Your task to perform on an android device: empty trash in google photos Image 0: 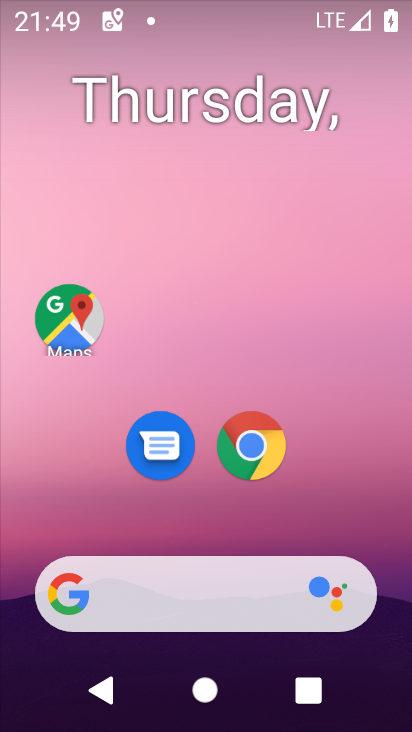
Step 0: drag from (199, 494) to (274, 59)
Your task to perform on an android device: empty trash in google photos Image 1: 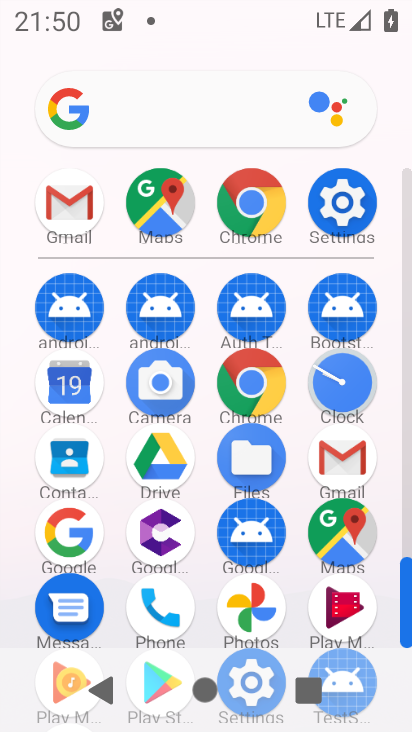
Step 1: click (268, 619)
Your task to perform on an android device: empty trash in google photos Image 2: 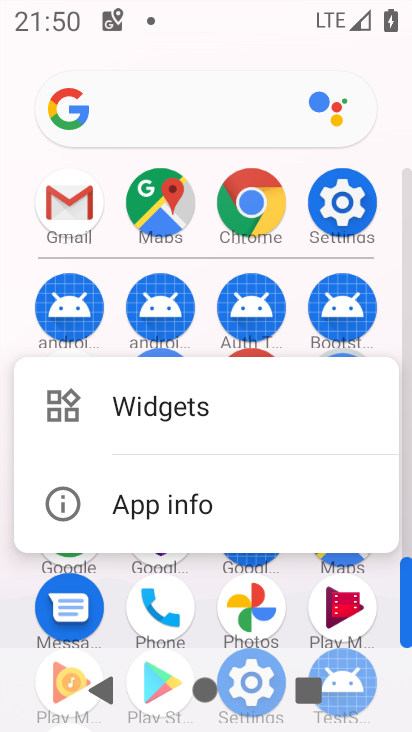
Step 2: click (104, 511)
Your task to perform on an android device: empty trash in google photos Image 3: 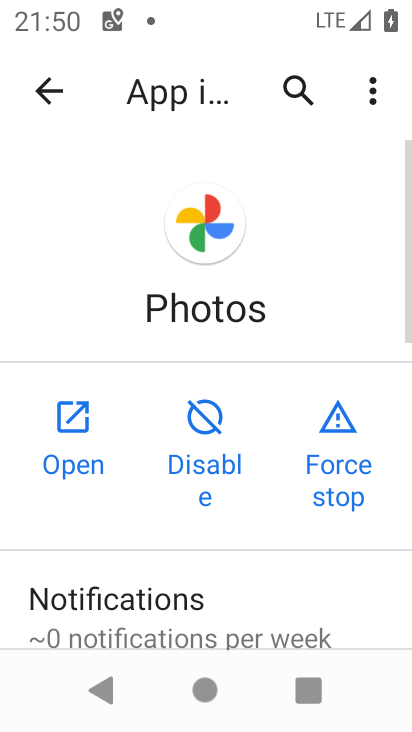
Step 3: click (89, 421)
Your task to perform on an android device: empty trash in google photos Image 4: 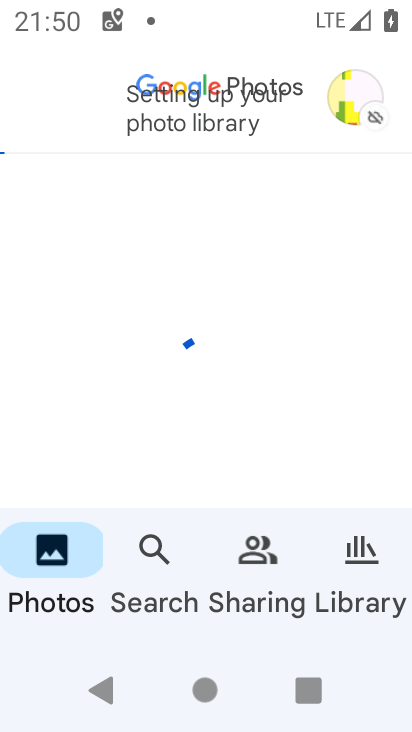
Step 4: click (354, 584)
Your task to perform on an android device: empty trash in google photos Image 5: 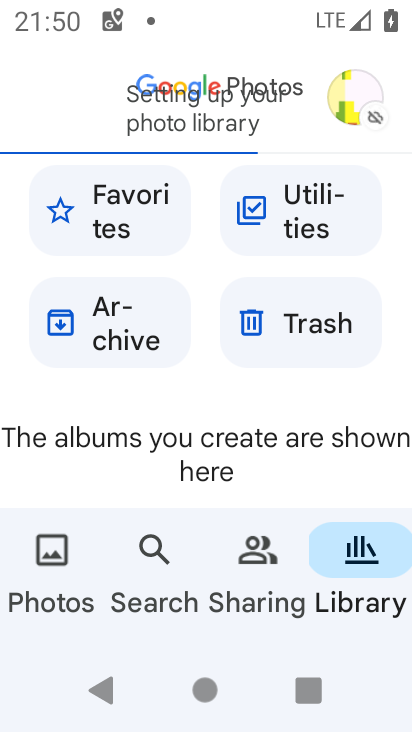
Step 5: click (276, 315)
Your task to perform on an android device: empty trash in google photos Image 6: 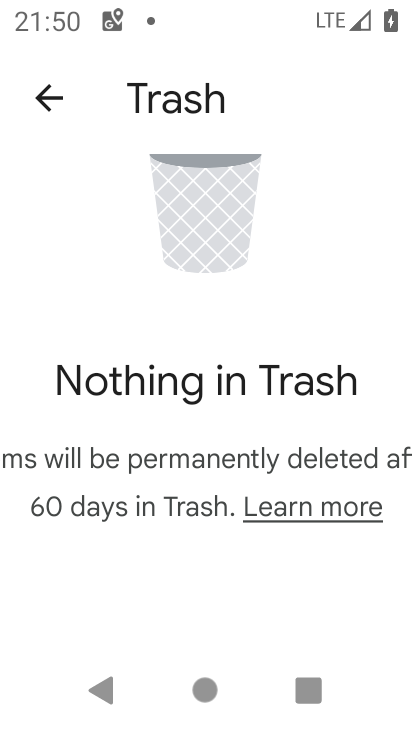
Step 6: task complete